Your task to perform on an android device: set an alarm Image 0: 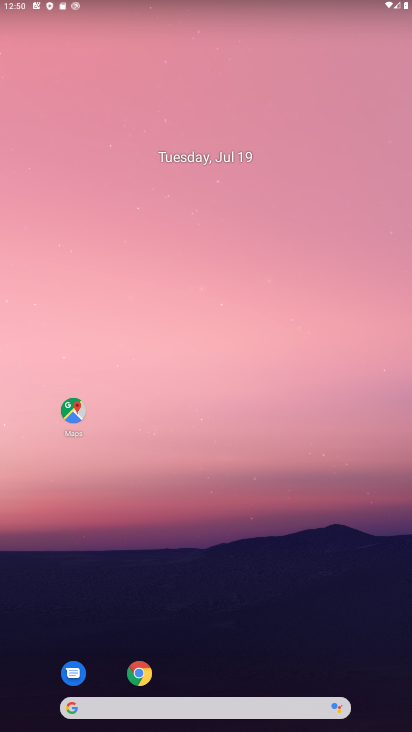
Step 0: drag from (225, 597) to (99, 169)
Your task to perform on an android device: set an alarm Image 1: 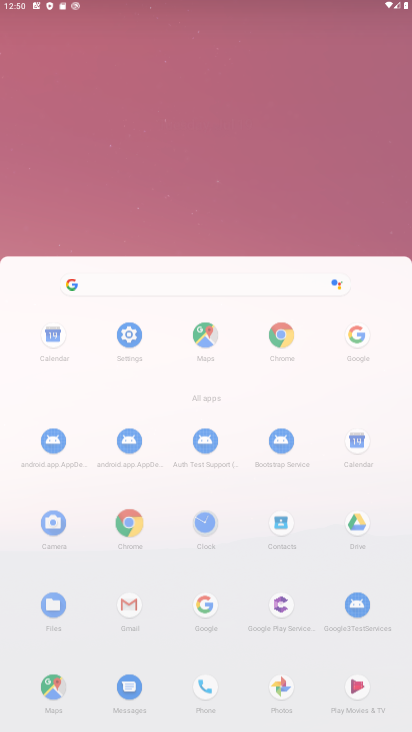
Step 1: click (134, 13)
Your task to perform on an android device: set an alarm Image 2: 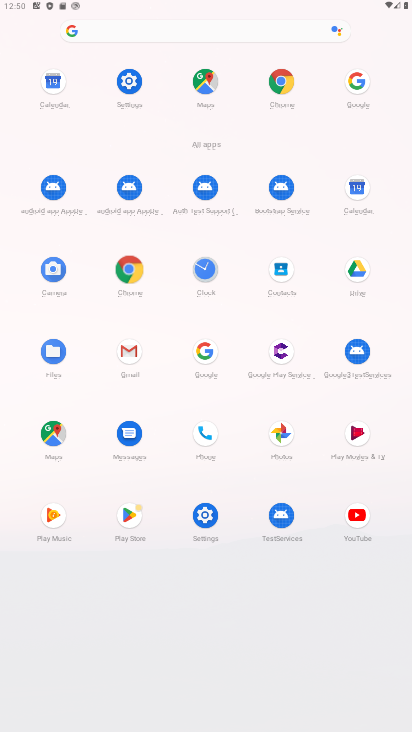
Step 2: drag from (208, 446) to (72, 11)
Your task to perform on an android device: set an alarm Image 3: 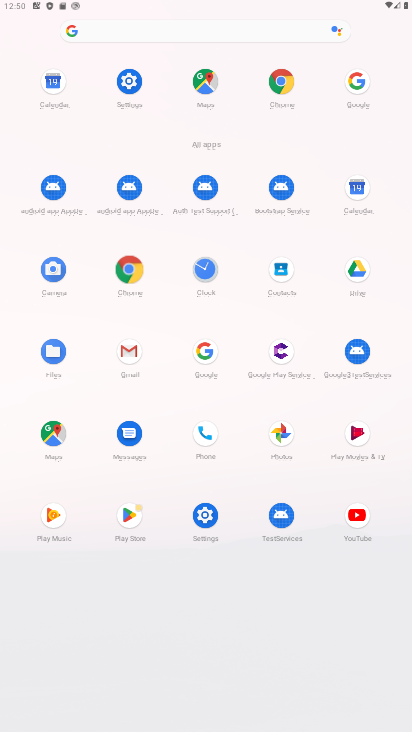
Step 3: drag from (266, 321) to (175, 30)
Your task to perform on an android device: set an alarm Image 4: 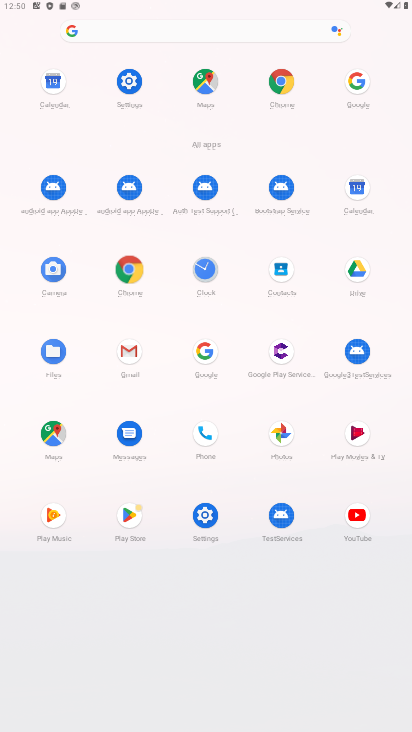
Step 4: click (243, 275)
Your task to perform on an android device: set an alarm Image 5: 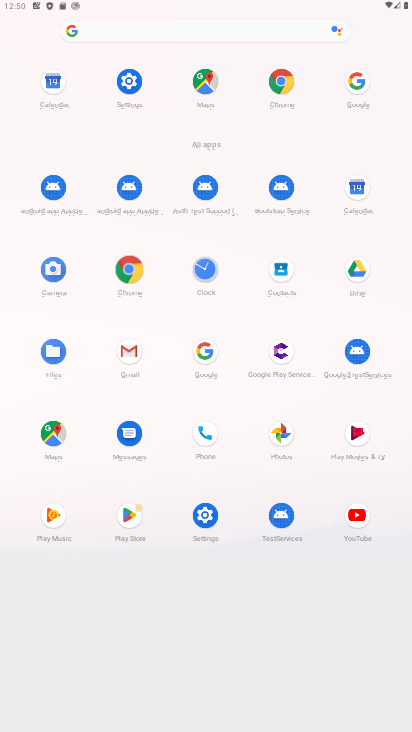
Step 5: click (204, 274)
Your task to perform on an android device: set an alarm Image 6: 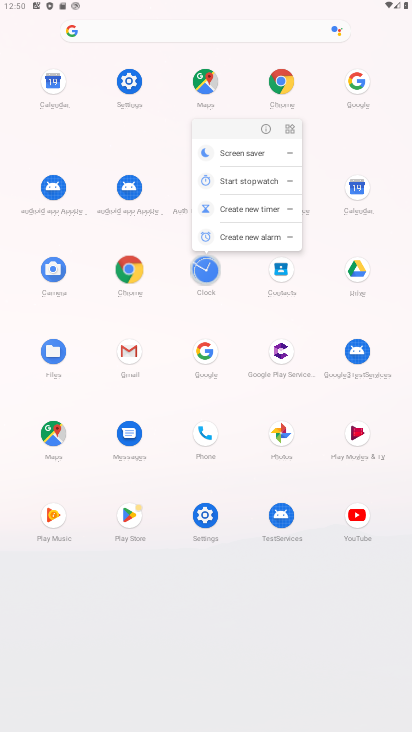
Step 6: click (204, 273)
Your task to perform on an android device: set an alarm Image 7: 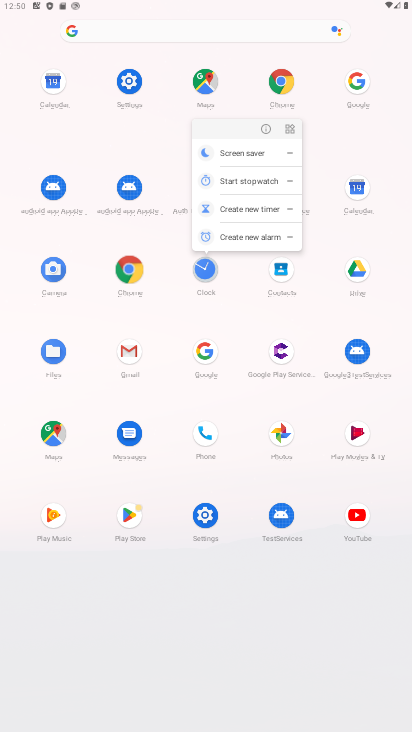
Step 7: click (204, 273)
Your task to perform on an android device: set an alarm Image 8: 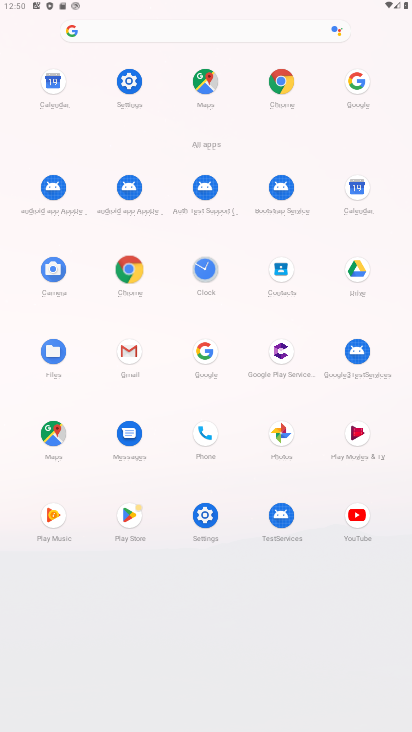
Step 8: click (204, 273)
Your task to perform on an android device: set an alarm Image 9: 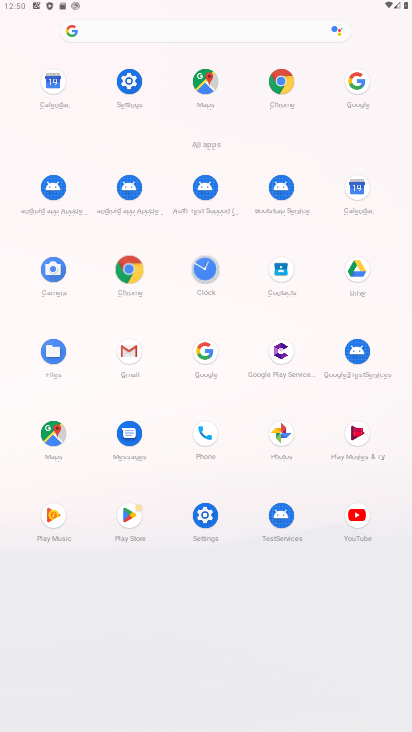
Step 9: click (204, 273)
Your task to perform on an android device: set an alarm Image 10: 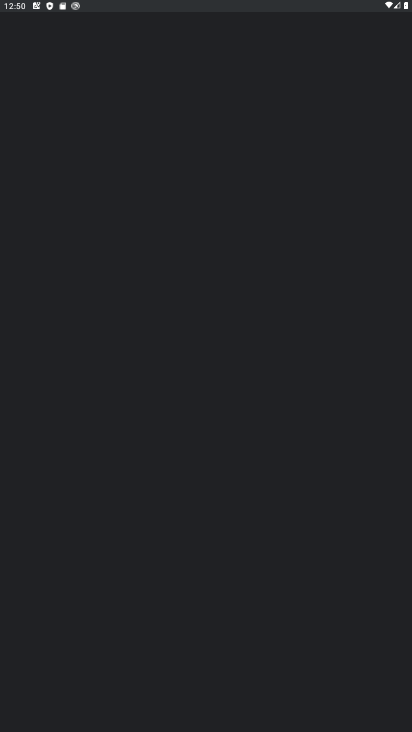
Step 10: click (204, 273)
Your task to perform on an android device: set an alarm Image 11: 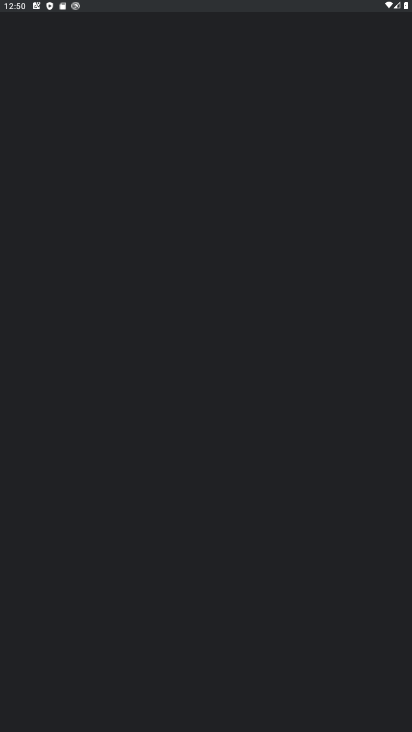
Step 11: click (204, 273)
Your task to perform on an android device: set an alarm Image 12: 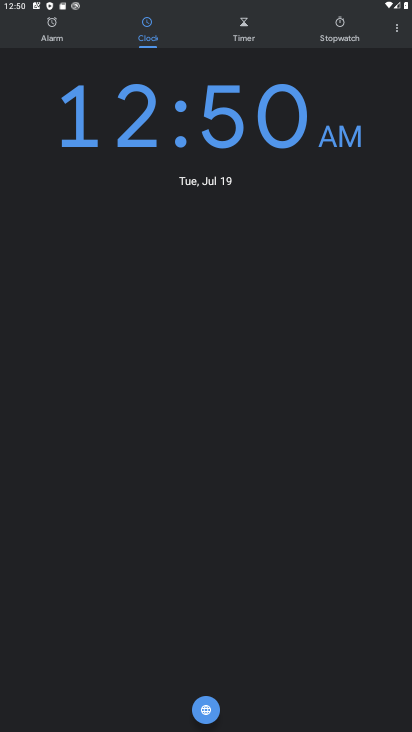
Step 12: click (49, 32)
Your task to perform on an android device: set an alarm Image 13: 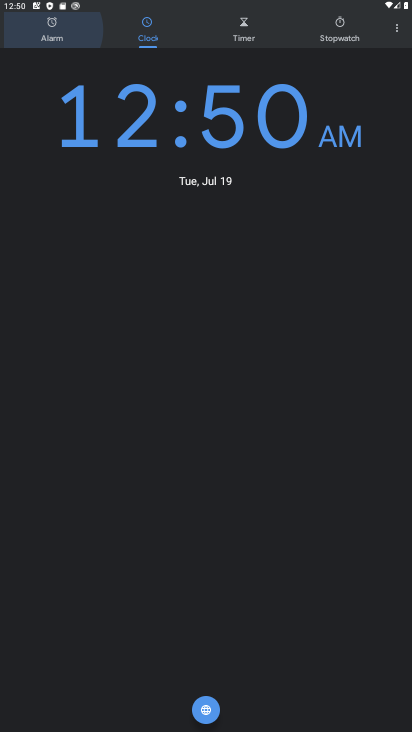
Step 13: click (49, 32)
Your task to perform on an android device: set an alarm Image 14: 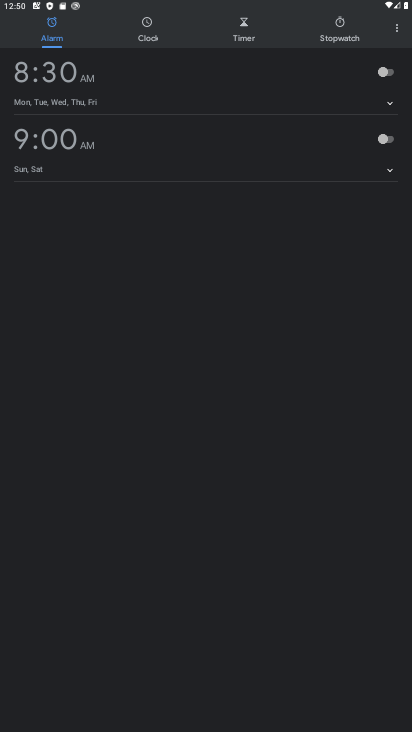
Step 14: click (48, 32)
Your task to perform on an android device: set an alarm Image 15: 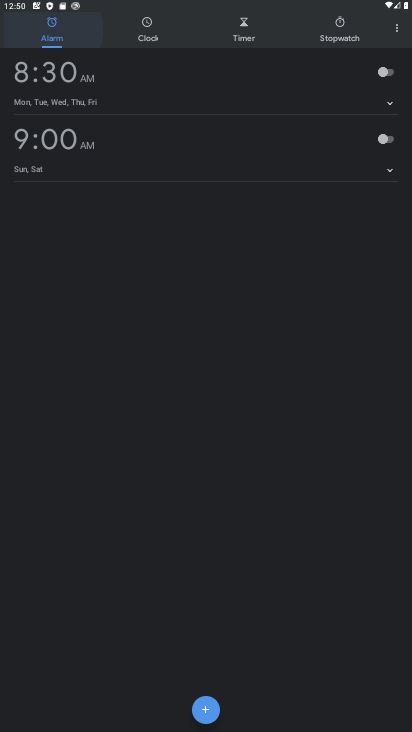
Step 15: click (47, 32)
Your task to perform on an android device: set an alarm Image 16: 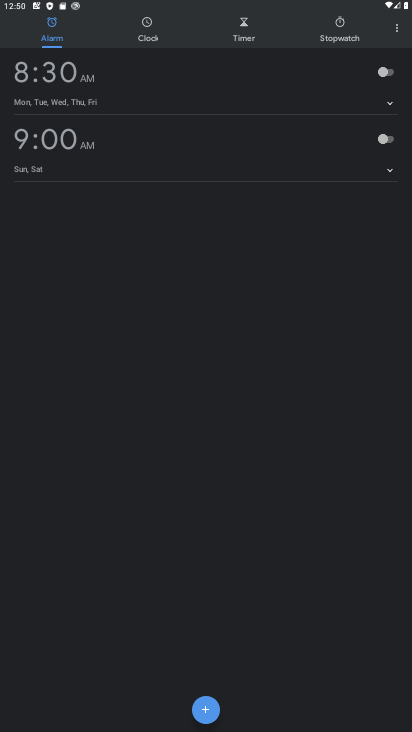
Step 16: click (378, 76)
Your task to perform on an android device: set an alarm Image 17: 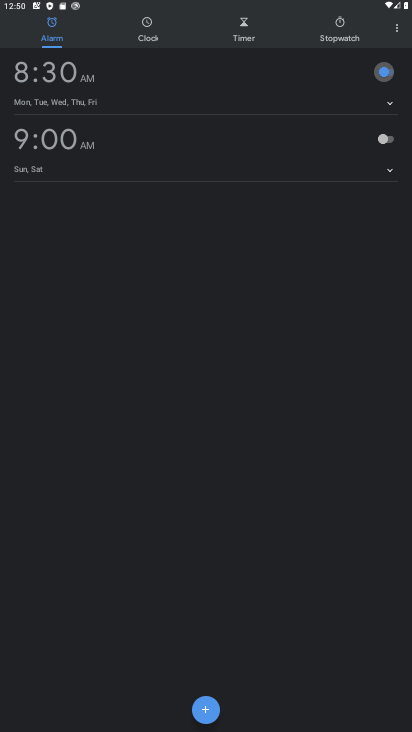
Step 17: click (378, 76)
Your task to perform on an android device: set an alarm Image 18: 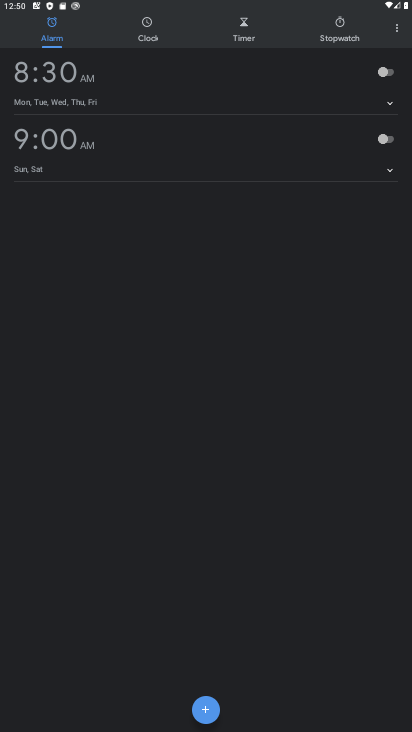
Step 18: task complete